Your task to perform on an android device: Open the Play Movies app and select the watchlist tab. Image 0: 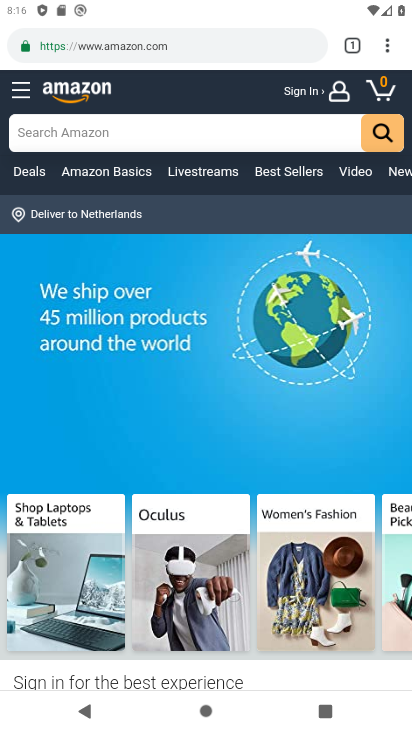
Step 0: press home button
Your task to perform on an android device: Open the Play Movies app and select the watchlist tab. Image 1: 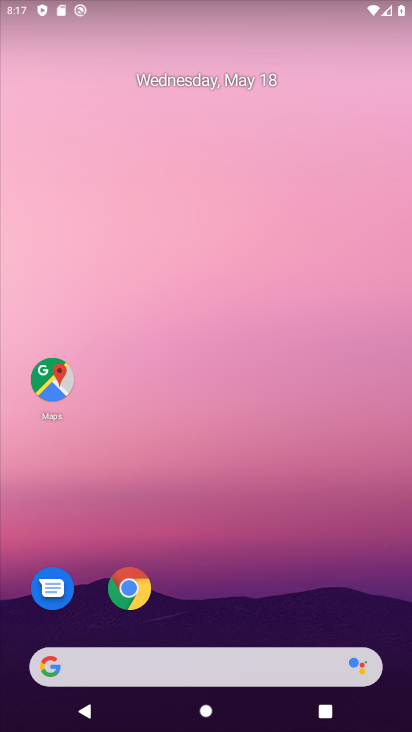
Step 1: drag from (211, 628) to (158, 39)
Your task to perform on an android device: Open the Play Movies app and select the watchlist tab. Image 2: 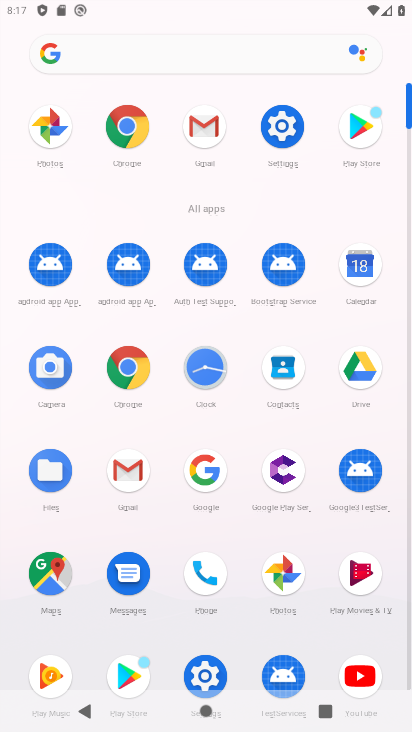
Step 2: click (357, 562)
Your task to perform on an android device: Open the Play Movies app and select the watchlist tab. Image 3: 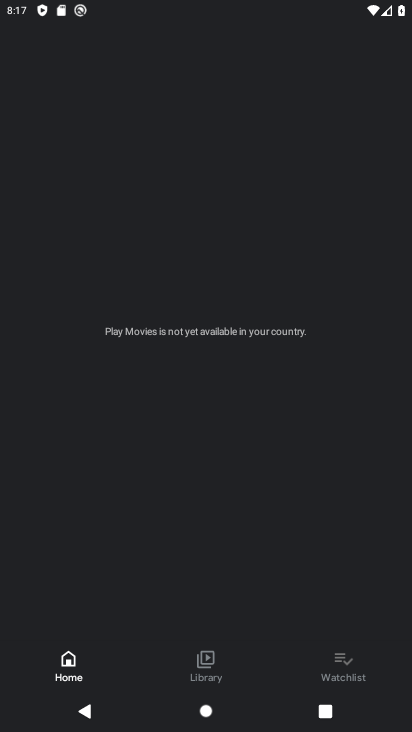
Step 3: click (343, 662)
Your task to perform on an android device: Open the Play Movies app and select the watchlist tab. Image 4: 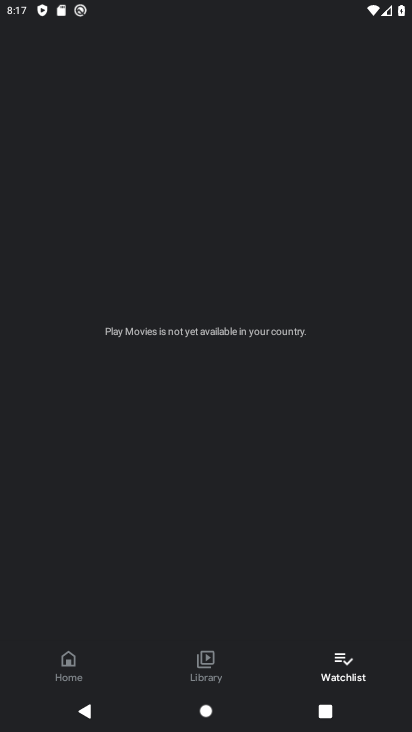
Step 4: task complete